Your task to perform on an android device: Open accessibility settings Image 0: 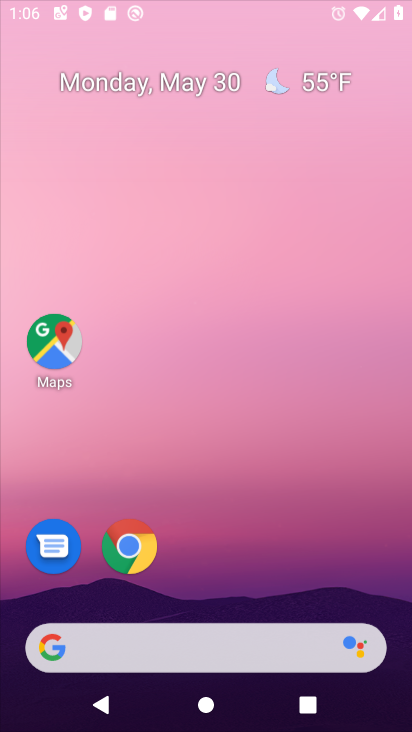
Step 0: press home button
Your task to perform on an android device: Open accessibility settings Image 1: 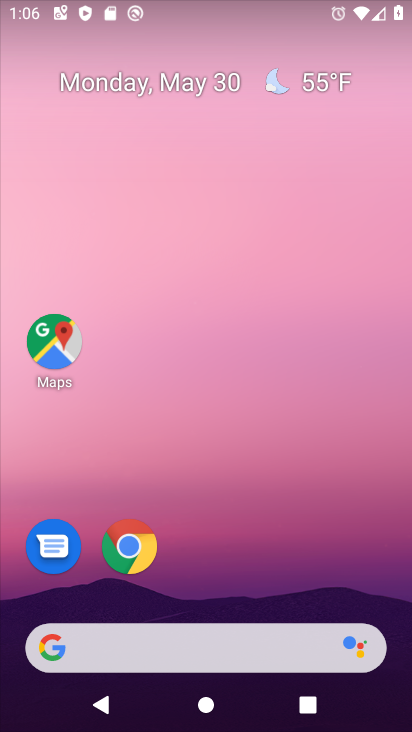
Step 1: drag from (239, 610) to (255, 197)
Your task to perform on an android device: Open accessibility settings Image 2: 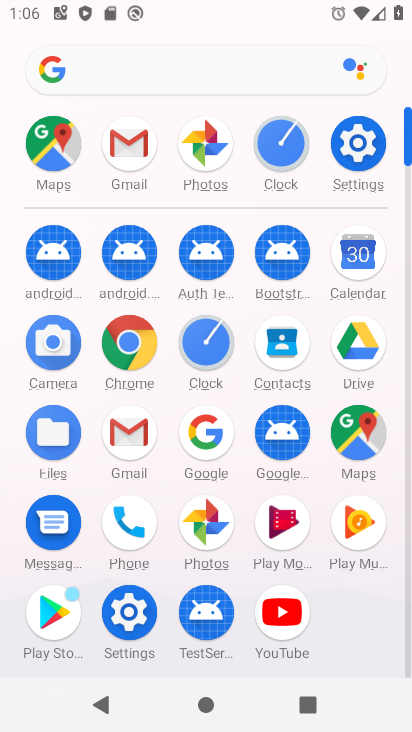
Step 2: click (359, 163)
Your task to perform on an android device: Open accessibility settings Image 3: 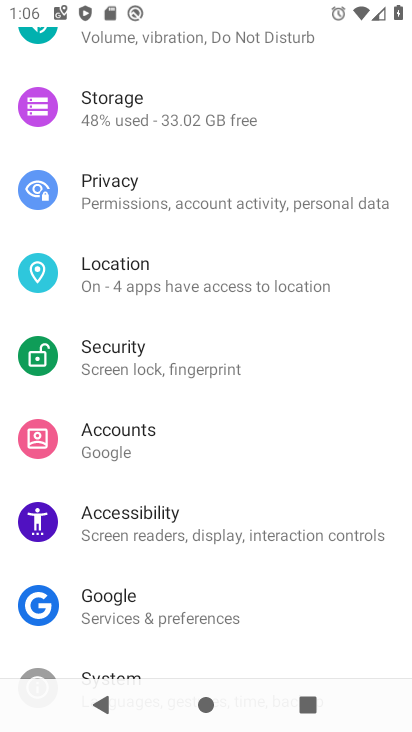
Step 3: click (127, 519)
Your task to perform on an android device: Open accessibility settings Image 4: 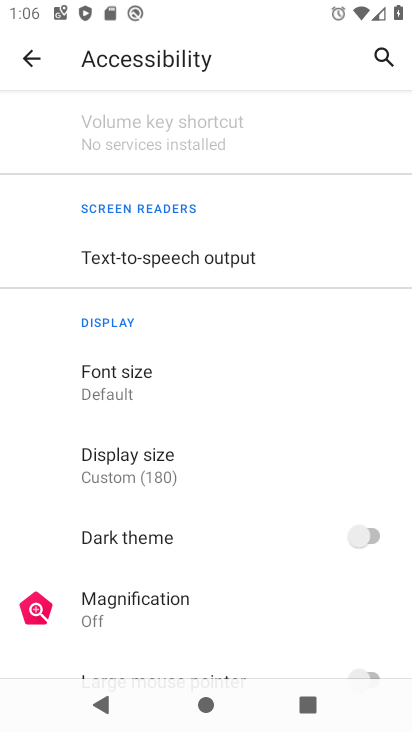
Step 4: task complete